Your task to perform on an android device: turn pop-ups off in chrome Image 0: 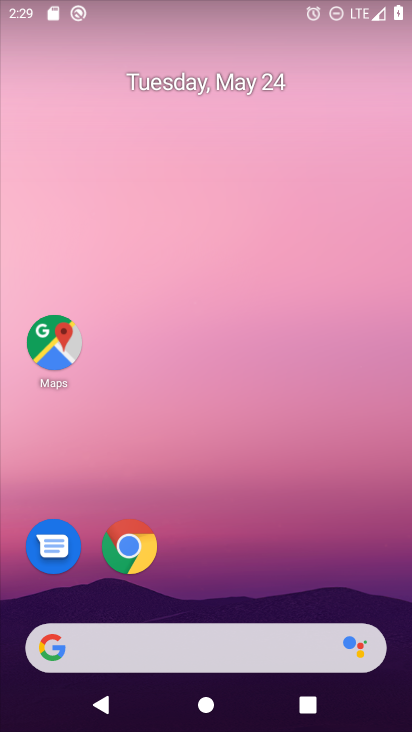
Step 0: drag from (283, 660) to (285, 33)
Your task to perform on an android device: turn pop-ups off in chrome Image 1: 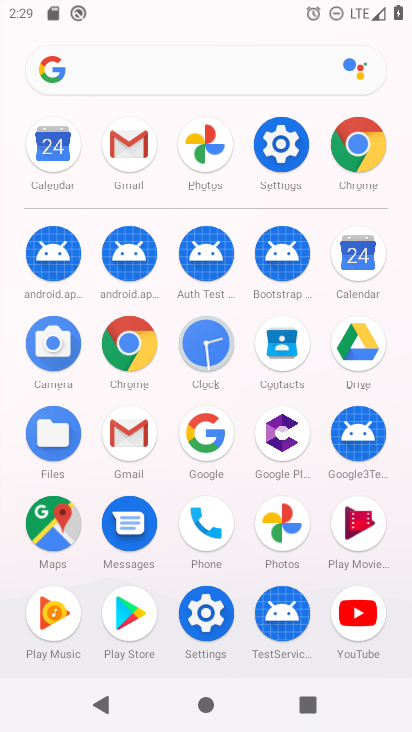
Step 1: click (140, 341)
Your task to perform on an android device: turn pop-ups off in chrome Image 2: 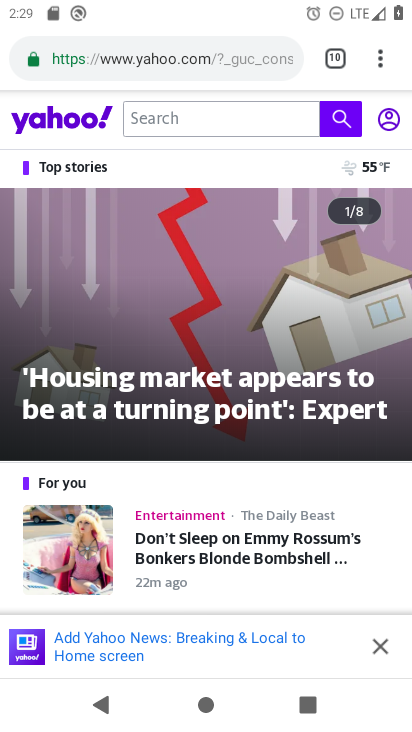
Step 2: drag from (373, 53) to (259, 575)
Your task to perform on an android device: turn pop-ups off in chrome Image 3: 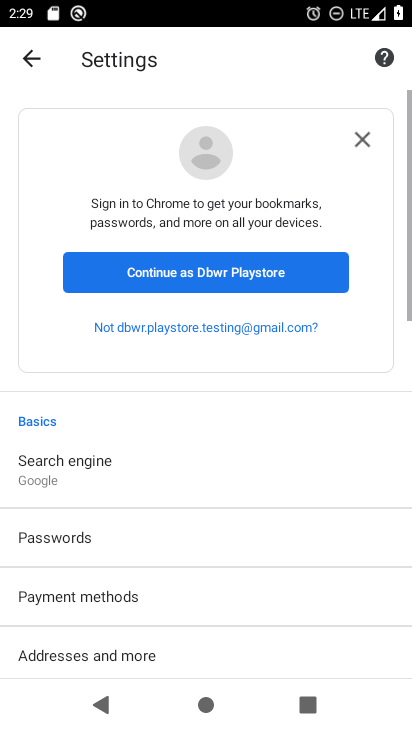
Step 3: drag from (241, 595) to (295, 85)
Your task to perform on an android device: turn pop-ups off in chrome Image 4: 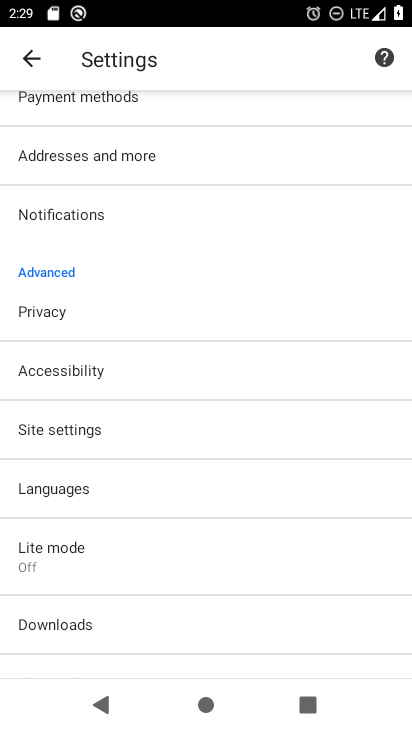
Step 4: click (113, 436)
Your task to perform on an android device: turn pop-ups off in chrome Image 5: 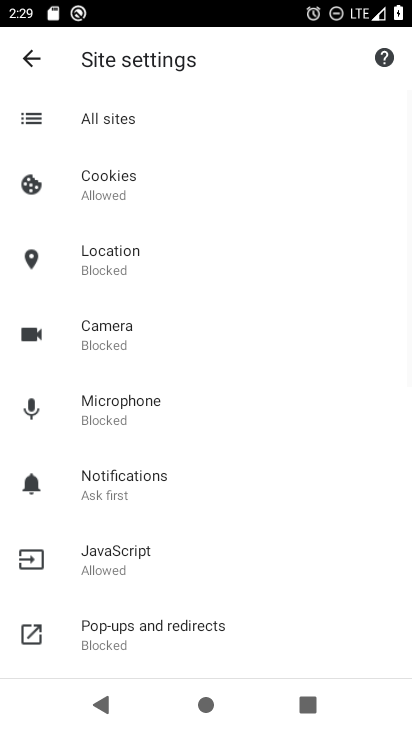
Step 5: click (158, 622)
Your task to perform on an android device: turn pop-ups off in chrome Image 6: 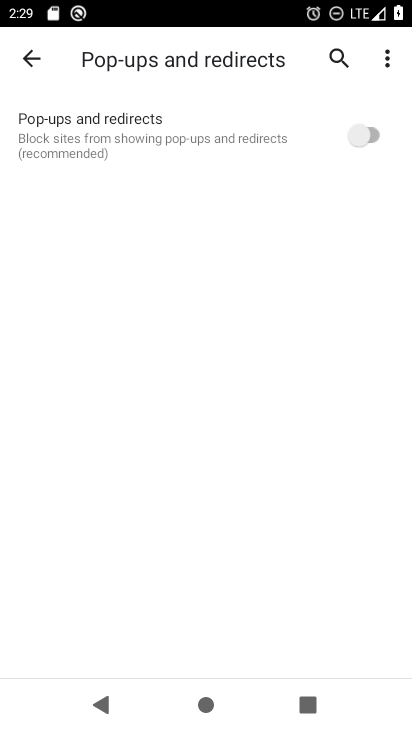
Step 6: task complete